Your task to perform on an android device: find which apps use the phone's location Image 0: 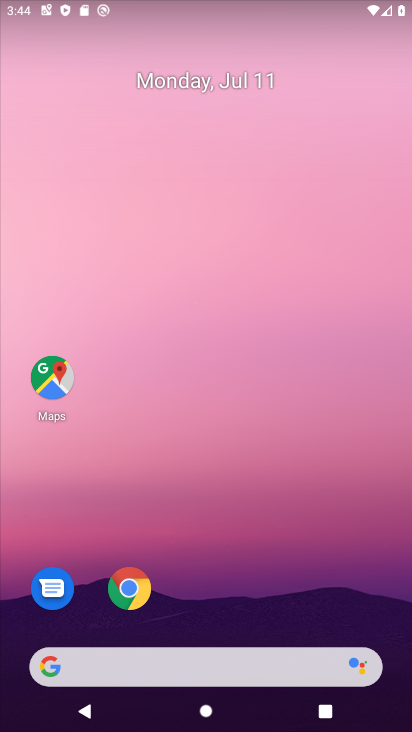
Step 0: press home button
Your task to perform on an android device: find which apps use the phone's location Image 1: 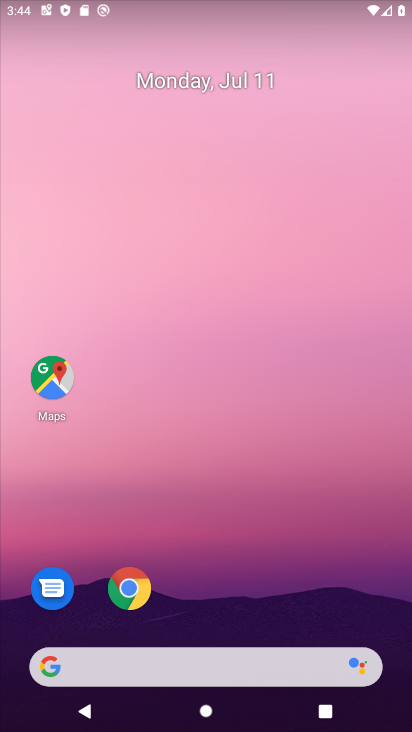
Step 1: drag from (233, 586) to (269, 72)
Your task to perform on an android device: find which apps use the phone's location Image 2: 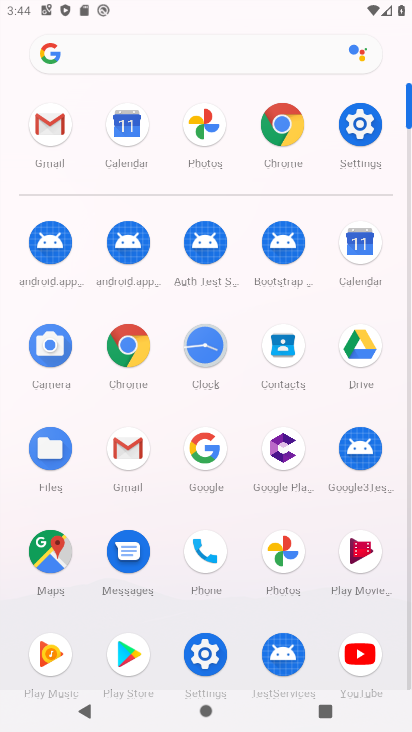
Step 2: click (364, 130)
Your task to perform on an android device: find which apps use the phone's location Image 3: 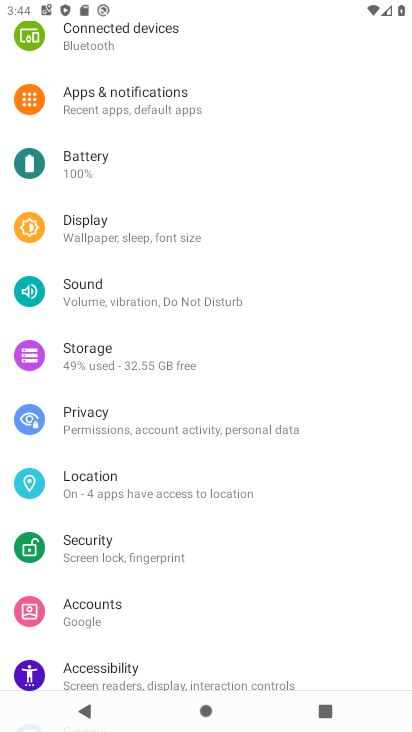
Step 3: click (179, 477)
Your task to perform on an android device: find which apps use the phone's location Image 4: 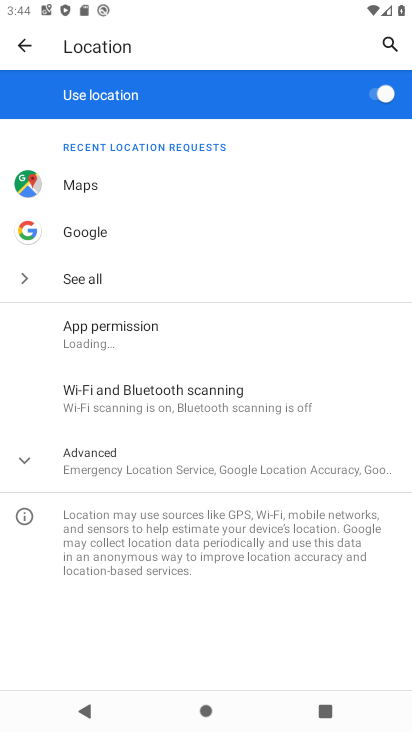
Step 4: click (87, 328)
Your task to perform on an android device: find which apps use the phone's location Image 5: 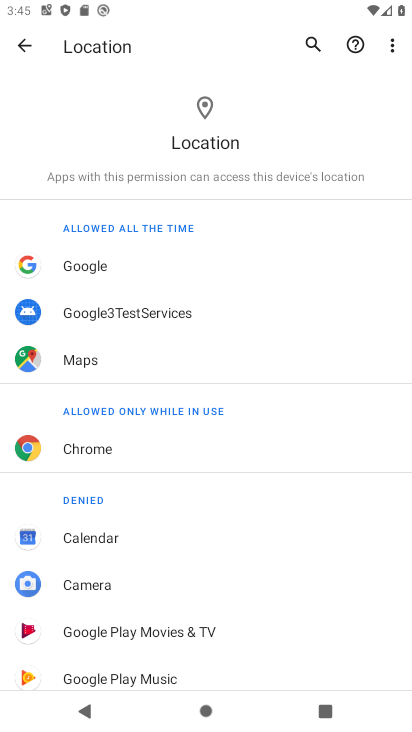
Step 5: task complete